Your task to perform on an android device: Show me recent news Image 0: 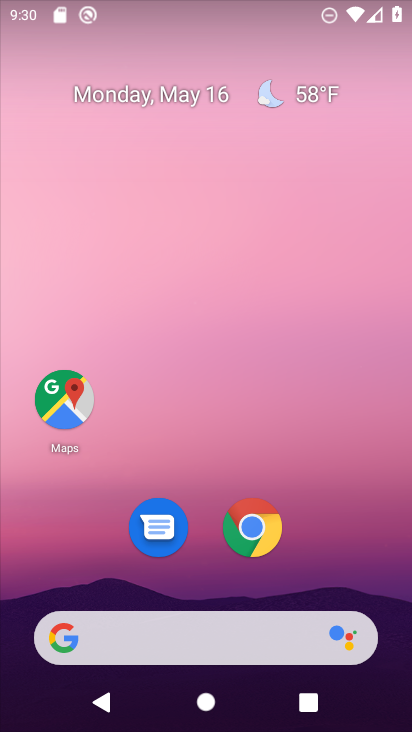
Step 0: drag from (399, 636) to (392, 193)
Your task to perform on an android device: Show me recent news Image 1: 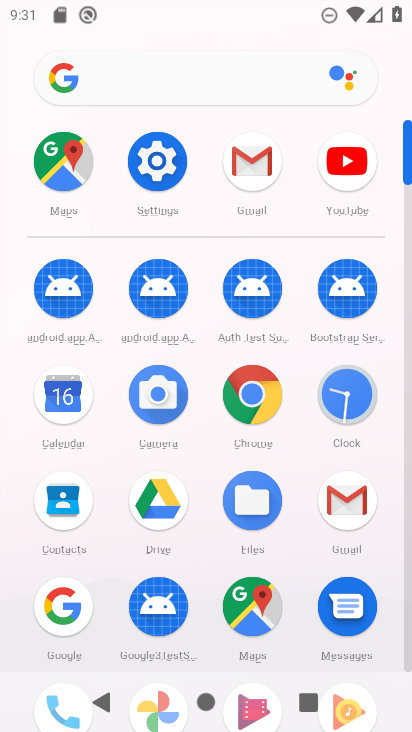
Step 1: drag from (201, 576) to (219, 304)
Your task to perform on an android device: Show me recent news Image 2: 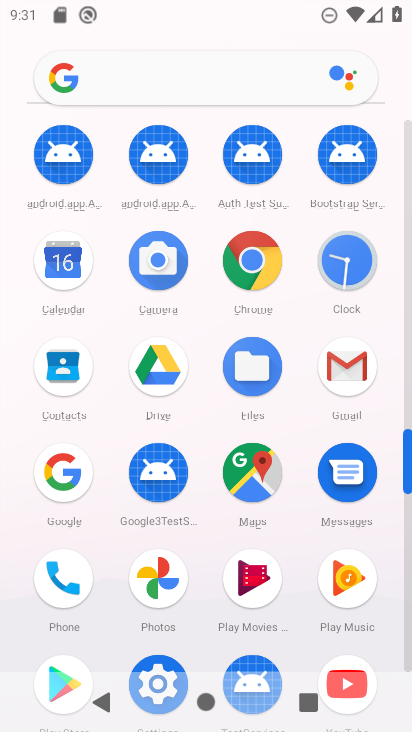
Step 2: click (62, 472)
Your task to perform on an android device: Show me recent news Image 3: 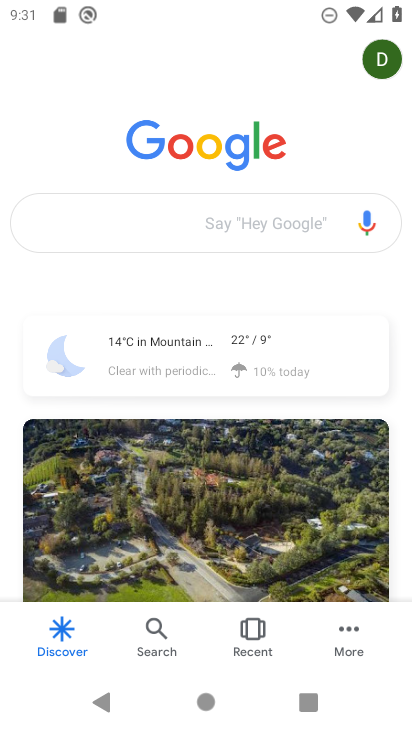
Step 3: task complete